Your task to perform on an android device: turn off smart reply in the gmail app Image 0: 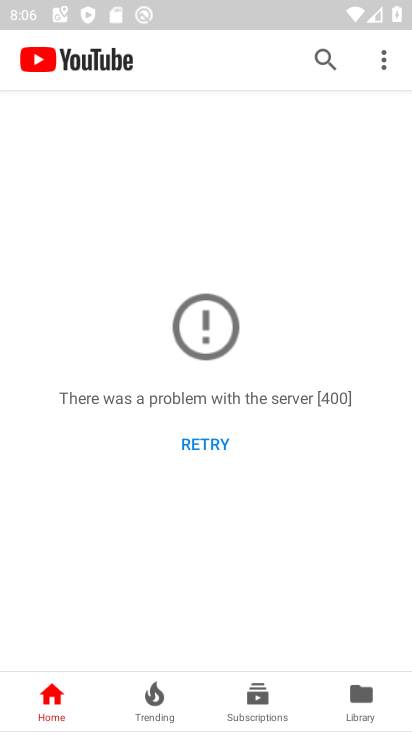
Step 0: press back button
Your task to perform on an android device: turn off smart reply in the gmail app Image 1: 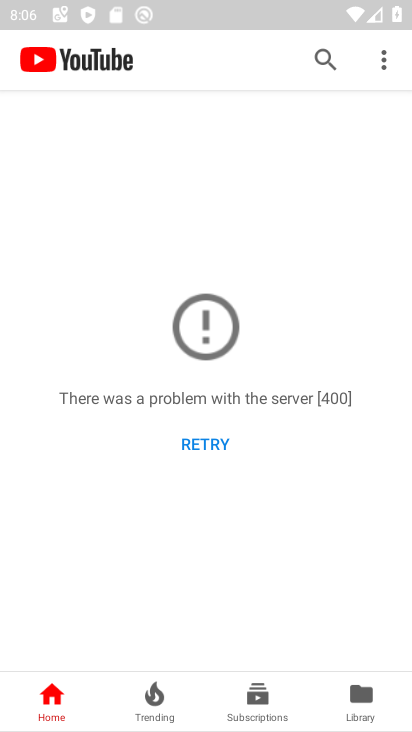
Step 1: press back button
Your task to perform on an android device: turn off smart reply in the gmail app Image 2: 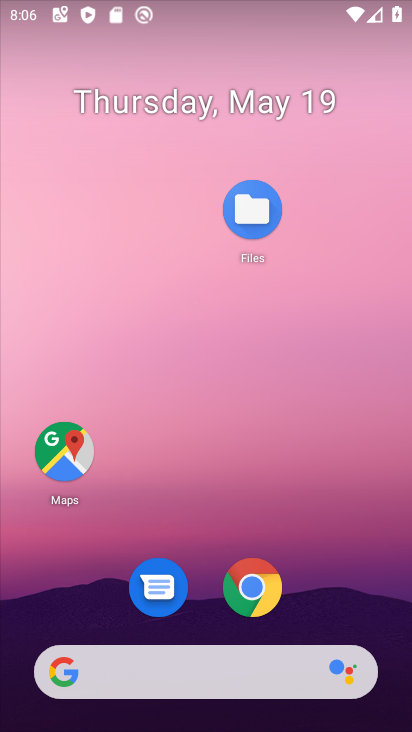
Step 2: drag from (345, 614) to (195, 113)
Your task to perform on an android device: turn off smart reply in the gmail app Image 3: 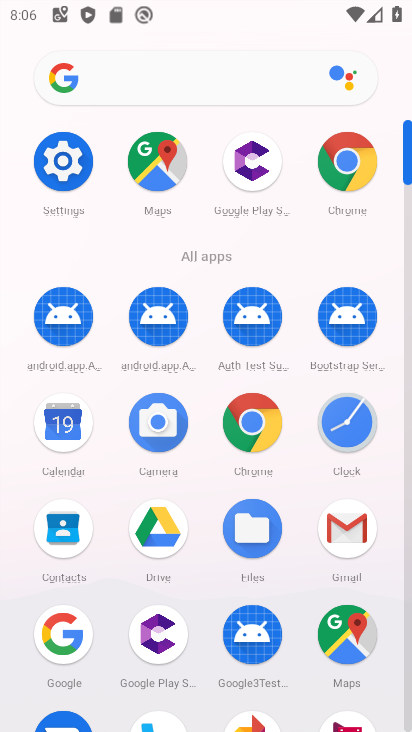
Step 3: click (350, 516)
Your task to perform on an android device: turn off smart reply in the gmail app Image 4: 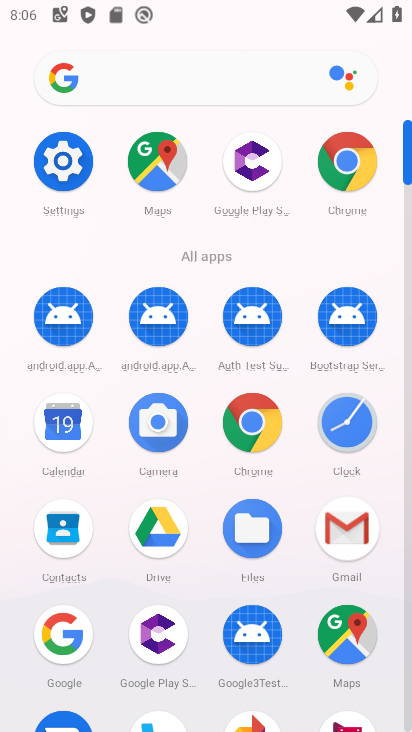
Step 4: click (350, 516)
Your task to perform on an android device: turn off smart reply in the gmail app Image 5: 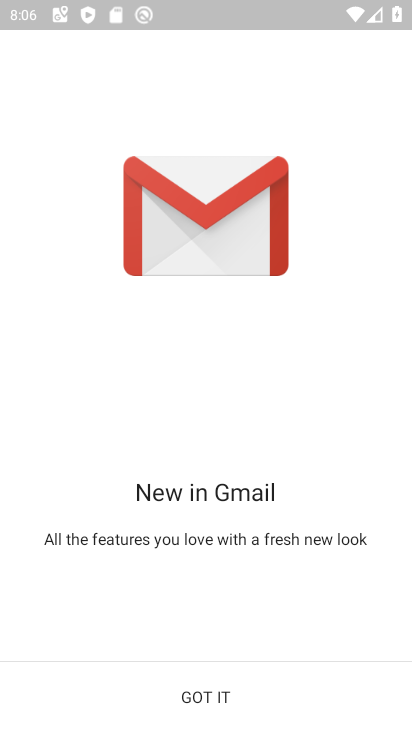
Step 5: click (219, 713)
Your task to perform on an android device: turn off smart reply in the gmail app Image 6: 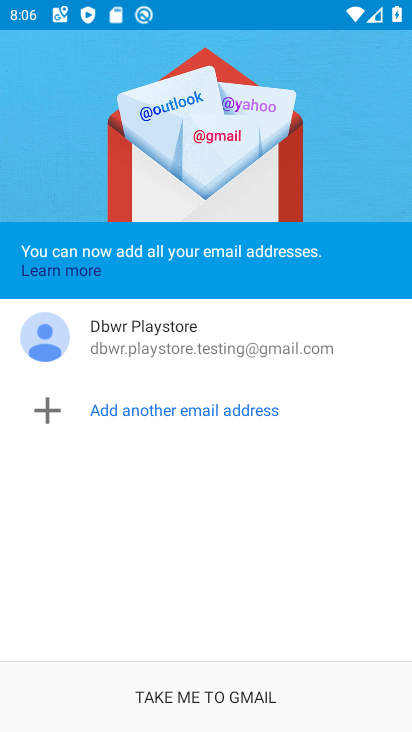
Step 6: click (226, 700)
Your task to perform on an android device: turn off smart reply in the gmail app Image 7: 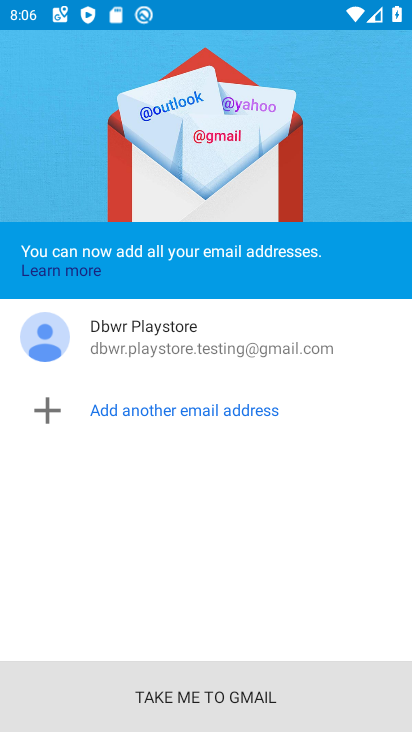
Step 7: click (238, 691)
Your task to perform on an android device: turn off smart reply in the gmail app Image 8: 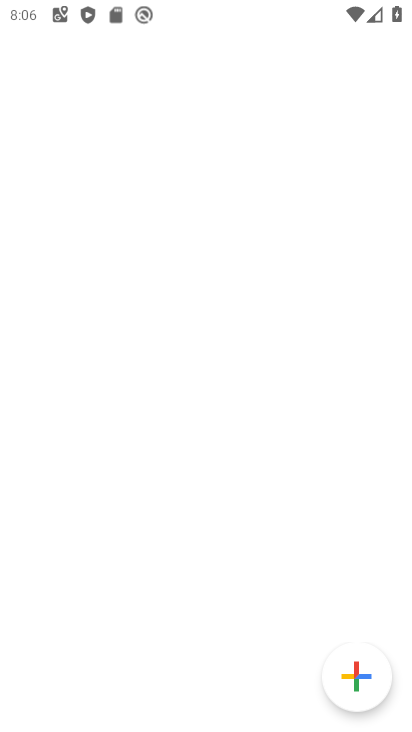
Step 8: click (206, 679)
Your task to perform on an android device: turn off smart reply in the gmail app Image 9: 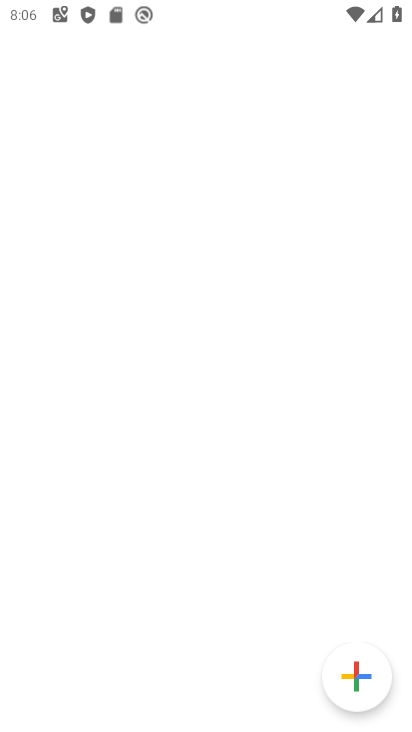
Step 9: click (206, 679)
Your task to perform on an android device: turn off smart reply in the gmail app Image 10: 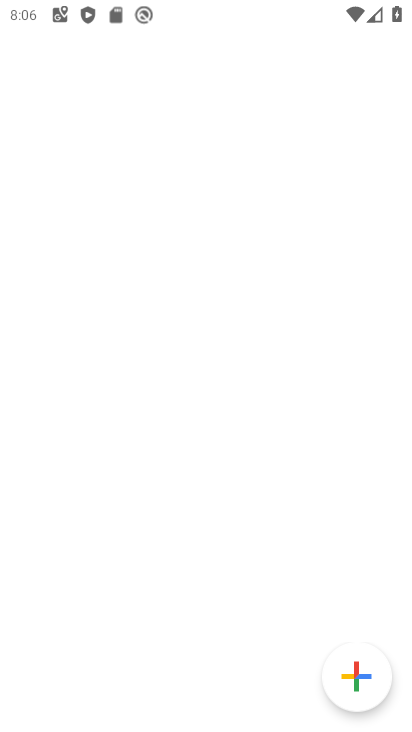
Step 10: click (206, 679)
Your task to perform on an android device: turn off smart reply in the gmail app Image 11: 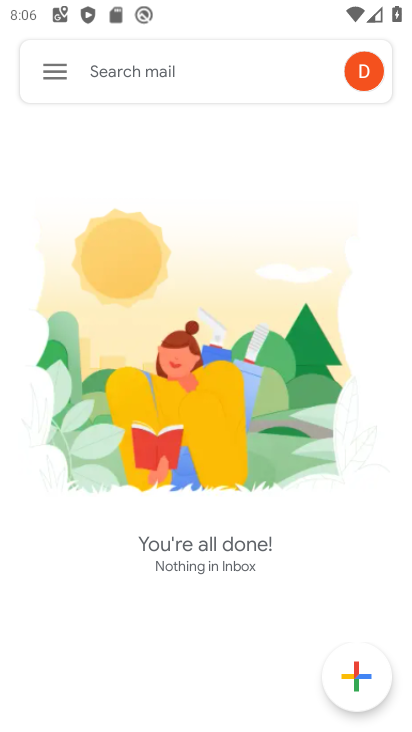
Step 11: click (48, 75)
Your task to perform on an android device: turn off smart reply in the gmail app Image 12: 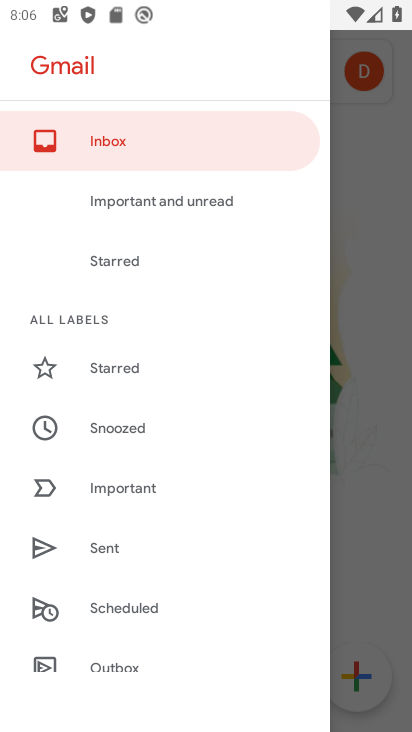
Step 12: drag from (118, 553) to (97, 217)
Your task to perform on an android device: turn off smart reply in the gmail app Image 13: 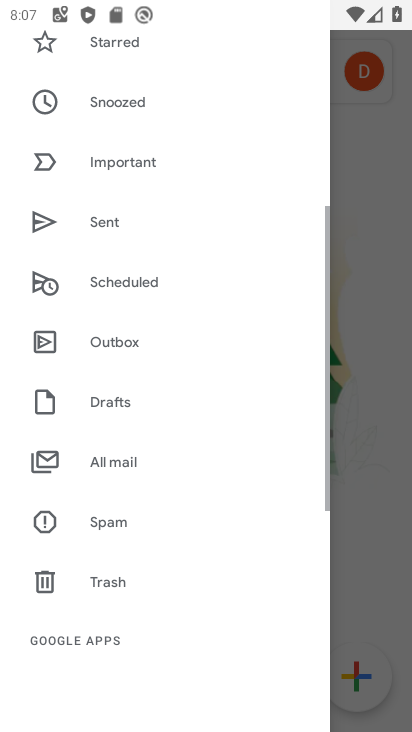
Step 13: click (100, 385)
Your task to perform on an android device: turn off smart reply in the gmail app Image 14: 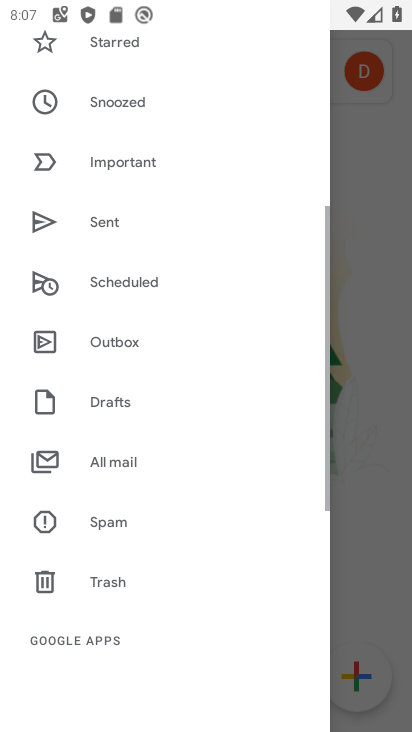
Step 14: drag from (150, 541) to (162, 152)
Your task to perform on an android device: turn off smart reply in the gmail app Image 15: 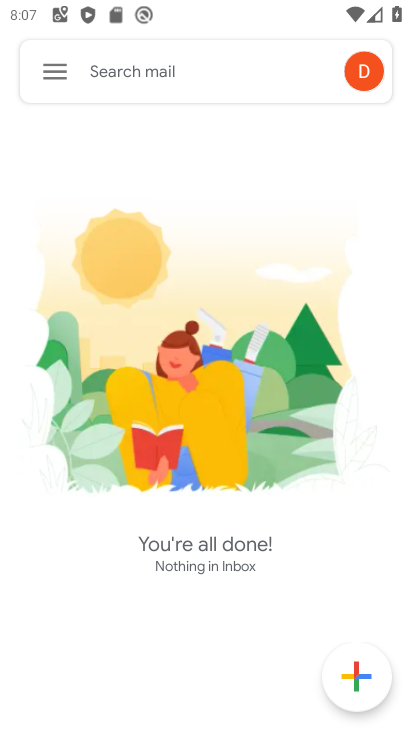
Step 15: drag from (165, 481) to (105, 57)
Your task to perform on an android device: turn off smart reply in the gmail app Image 16: 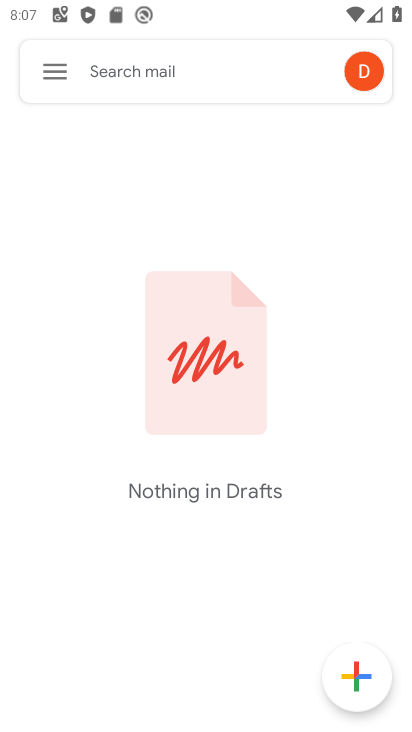
Step 16: click (54, 73)
Your task to perform on an android device: turn off smart reply in the gmail app Image 17: 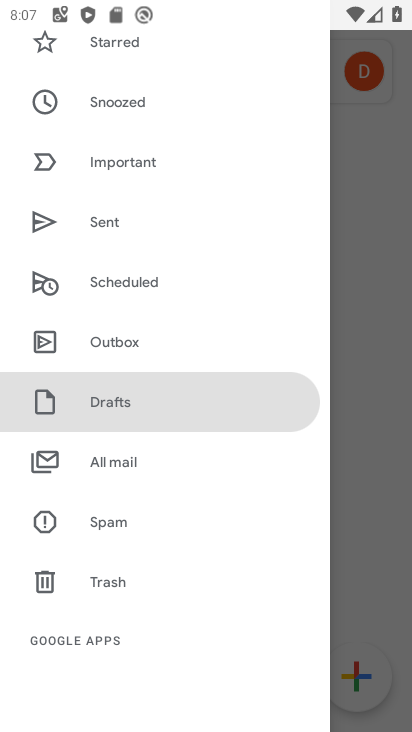
Step 17: drag from (114, 578) to (110, 177)
Your task to perform on an android device: turn off smart reply in the gmail app Image 18: 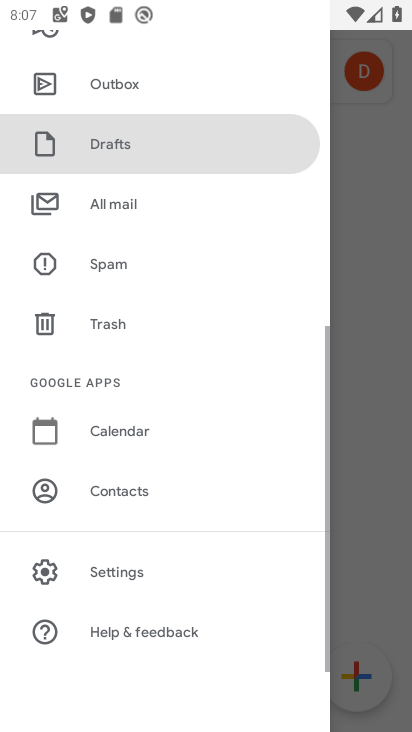
Step 18: drag from (168, 518) to (187, 133)
Your task to perform on an android device: turn off smart reply in the gmail app Image 19: 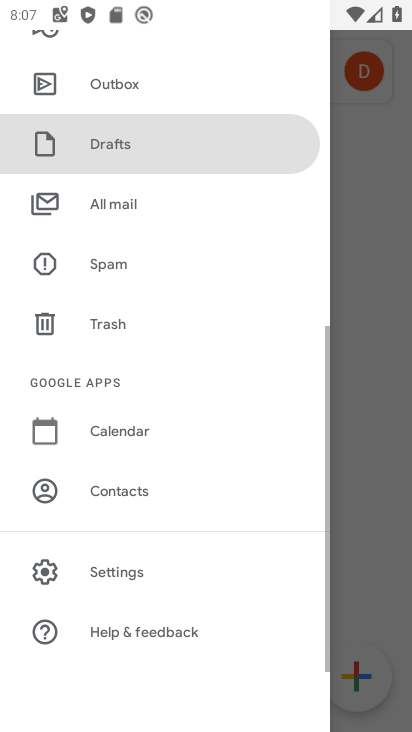
Step 19: click (101, 571)
Your task to perform on an android device: turn off smart reply in the gmail app Image 20: 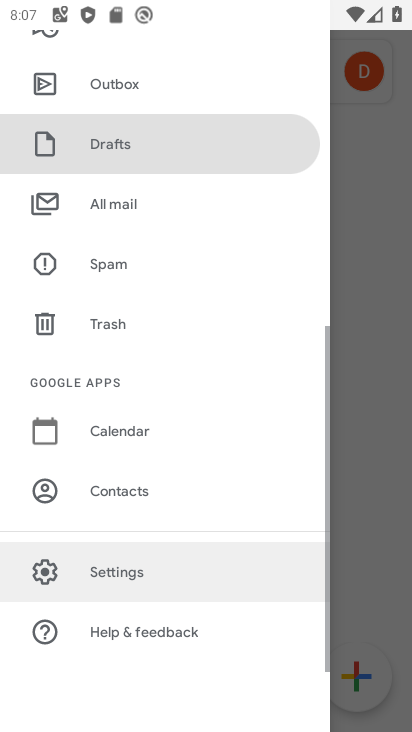
Step 20: click (101, 571)
Your task to perform on an android device: turn off smart reply in the gmail app Image 21: 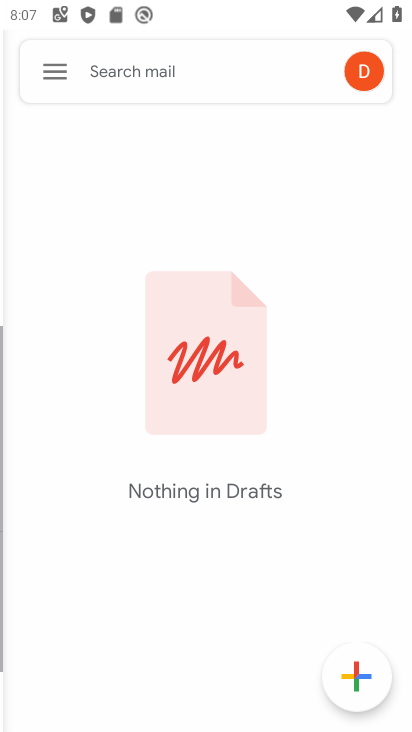
Step 21: click (101, 571)
Your task to perform on an android device: turn off smart reply in the gmail app Image 22: 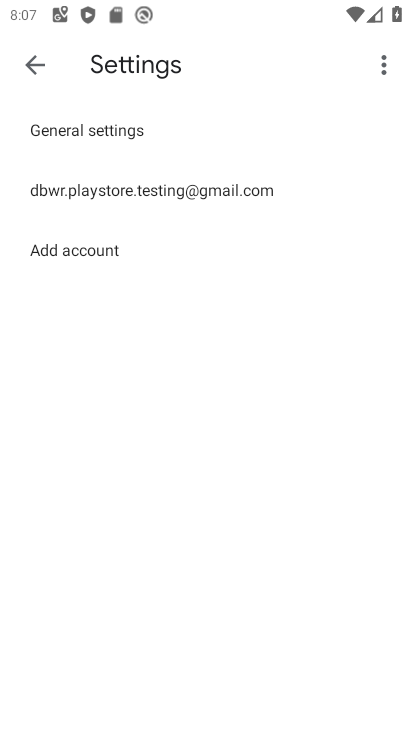
Step 22: click (105, 182)
Your task to perform on an android device: turn off smart reply in the gmail app Image 23: 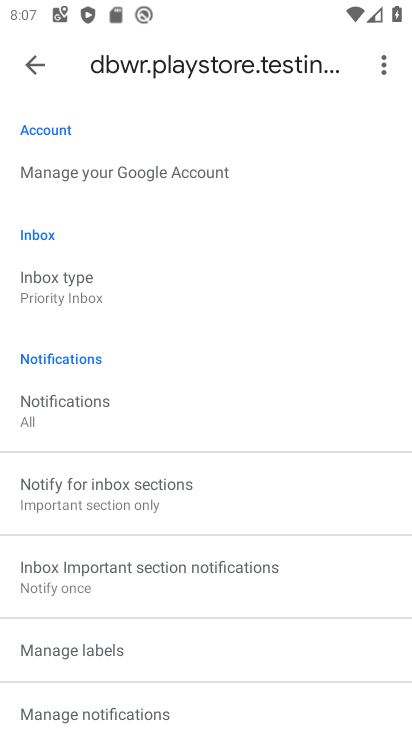
Step 23: drag from (142, 411) to (114, 107)
Your task to perform on an android device: turn off smart reply in the gmail app Image 24: 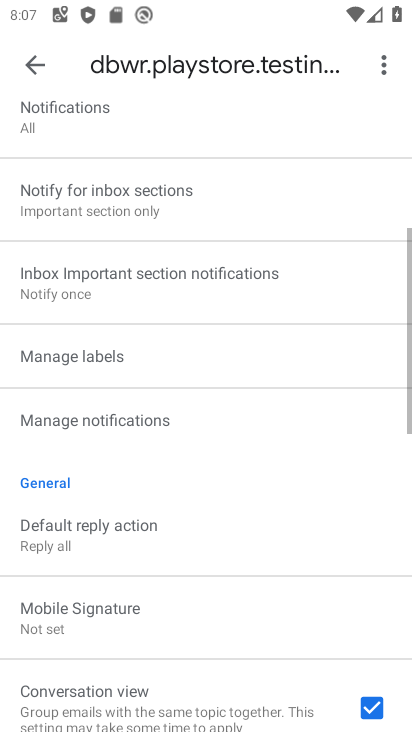
Step 24: drag from (218, 459) to (237, 163)
Your task to perform on an android device: turn off smart reply in the gmail app Image 25: 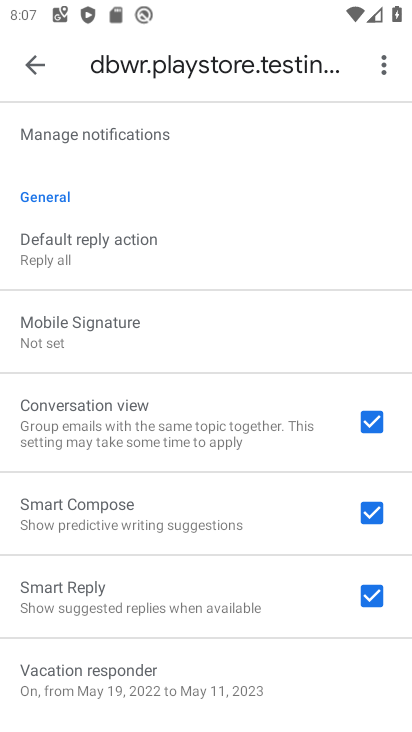
Step 25: click (70, 591)
Your task to perform on an android device: turn off smart reply in the gmail app Image 26: 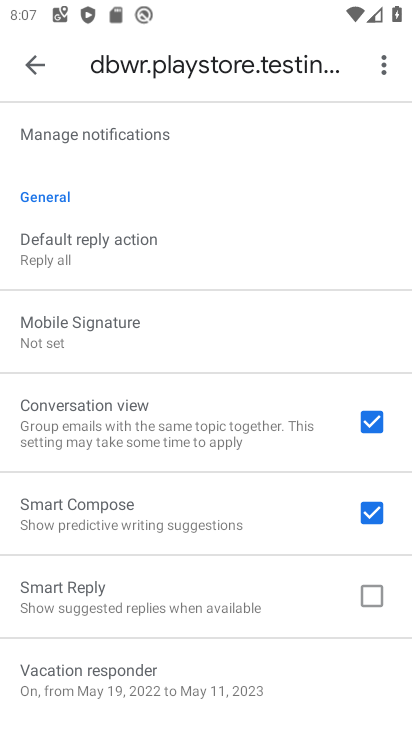
Step 26: task complete